Your task to perform on an android device: Open sound settings Image 0: 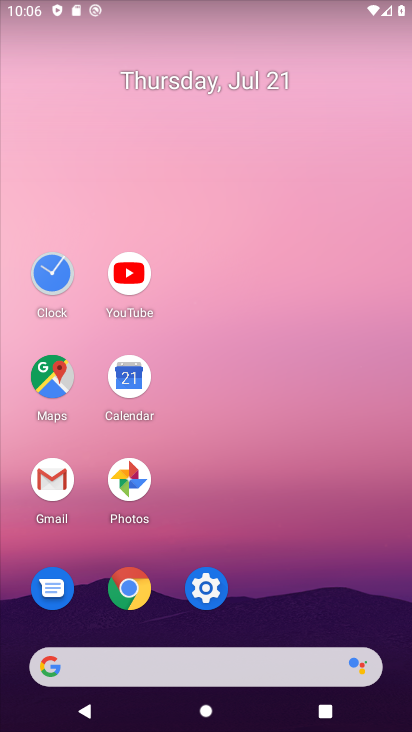
Step 0: click (206, 590)
Your task to perform on an android device: Open sound settings Image 1: 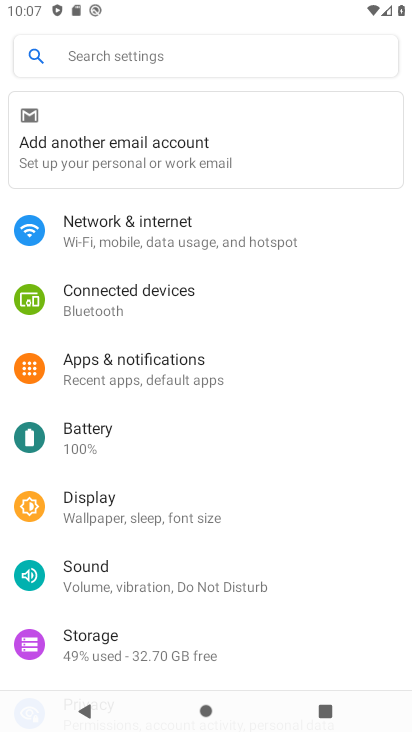
Step 1: click (90, 568)
Your task to perform on an android device: Open sound settings Image 2: 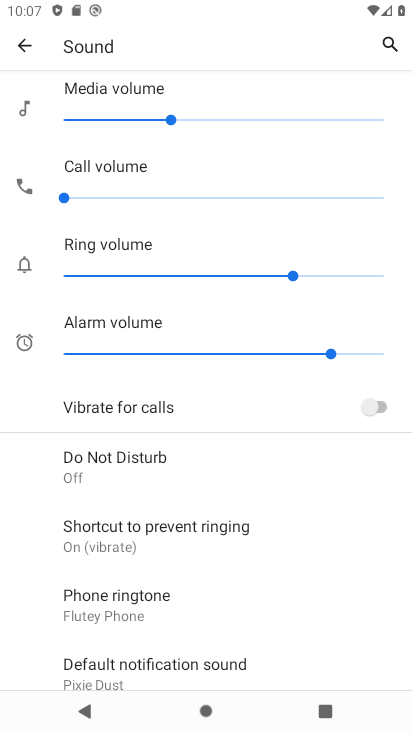
Step 2: task complete